Your task to perform on an android device: Check the news Image 0: 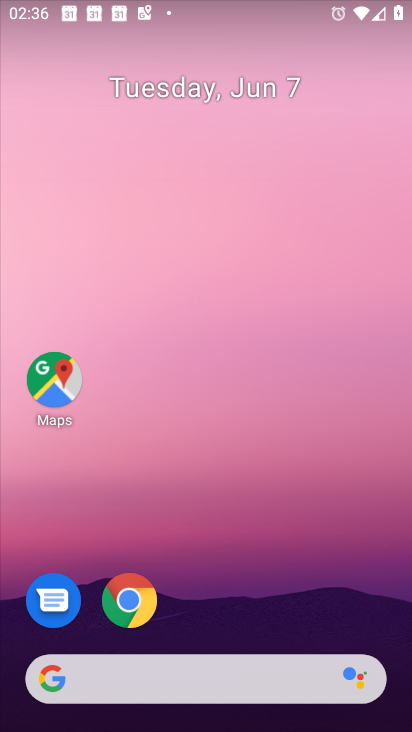
Step 0: drag from (2, 257) to (299, 222)
Your task to perform on an android device: Check the news Image 1: 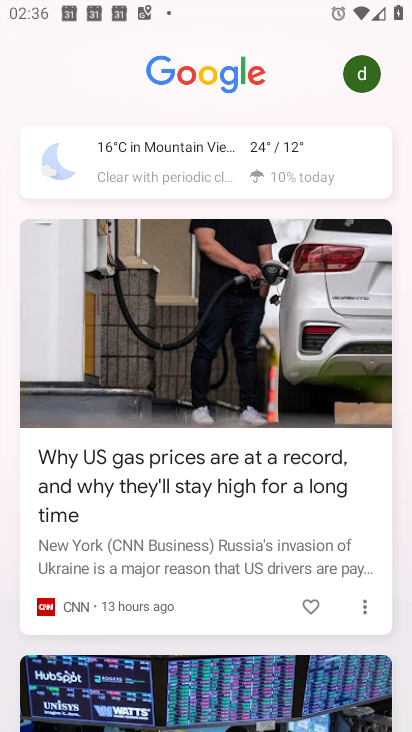
Step 1: task complete